Your task to perform on an android device: Open Youtube and go to "Your channel" Image 0: 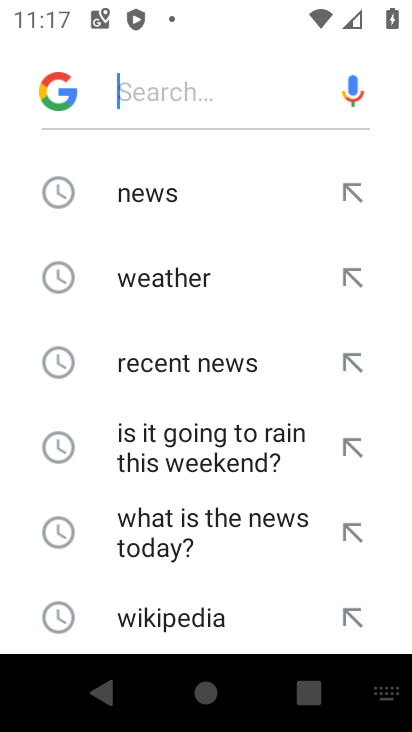
Step 0: press home button
Your task to perform on an android device: Open Youtube and go to "Your channel" Image 1: 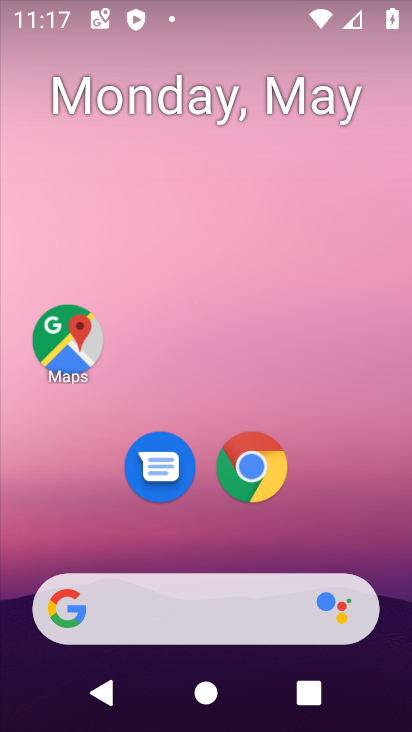
Step 1: drag from (234, 551) to (309, 61)
Your task to perform on an android device: Open Youtube and go to "Your channel" Image 2: 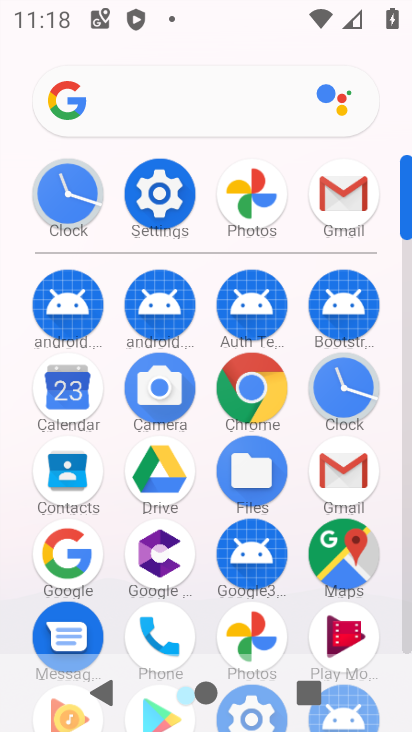
Step 2: drag from (106, 532) to (188, 226)
Your task to perform on an android device: Open Youtube and go to "Your channel" Image 3: 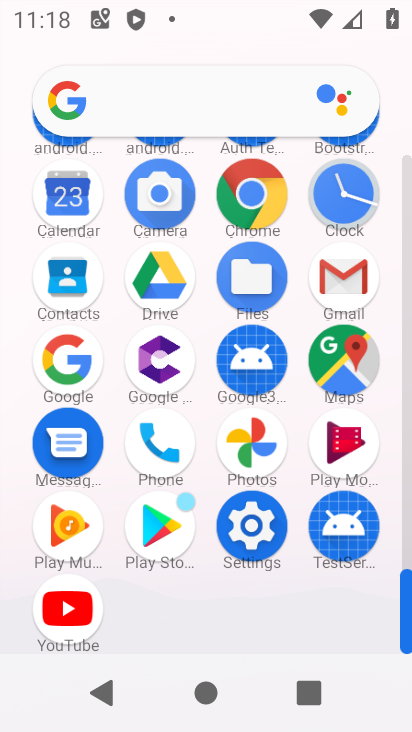
Step 3: click (67, 614)
Your task to perform on an android device: Open Youtube and go to "Your channel" Image 4: 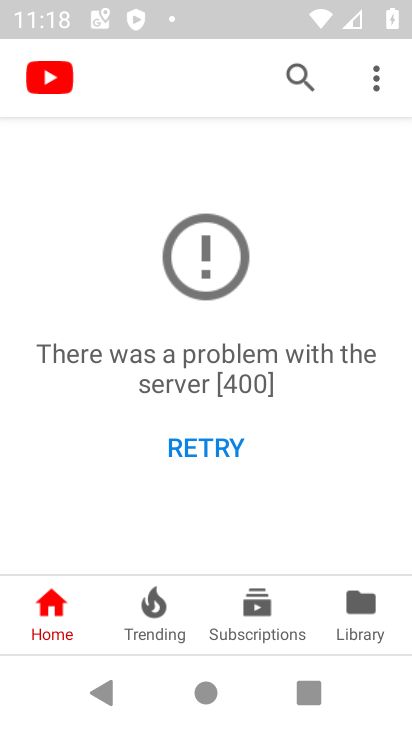
Step 4: click (220, 446)
Your task to perform on an android device: Open Youtube and go to "Your channel" Image 5: 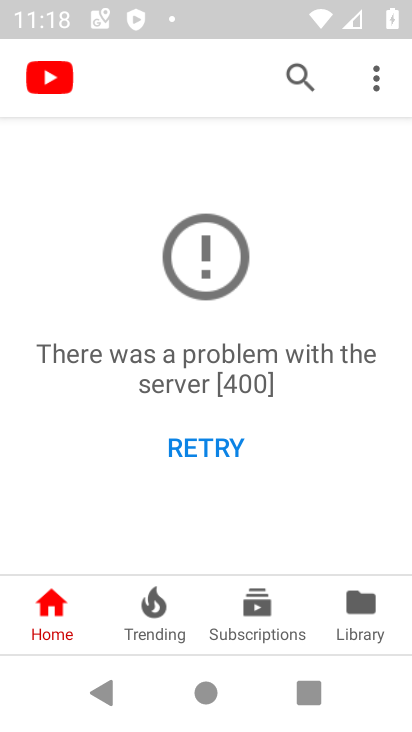
Step 5: click (211, 443)
Your task to perform on an android device: Open Youtube and go to "Your channel" Image 6: 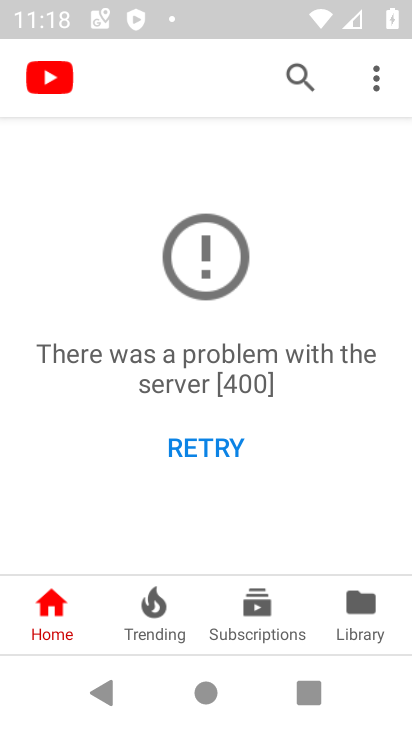
Step 6: click (204, 443)
Your task to perform on an android device: Open Youtube and go to "Your channel" Image 7: 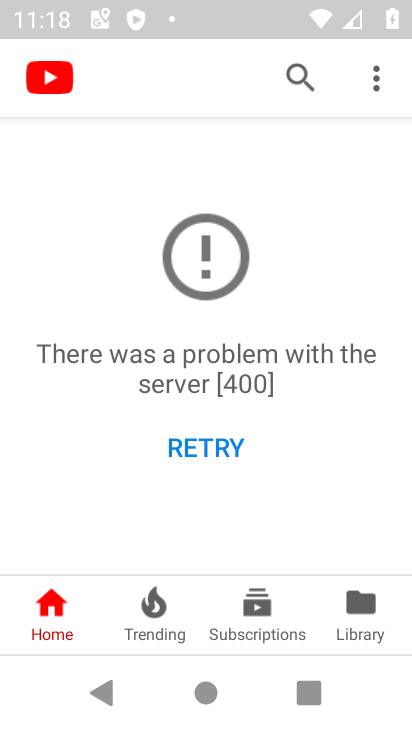
Step 7: task complete